Your task to perform on an android device: Search for seafood restaurants on Google Maps Image 0: 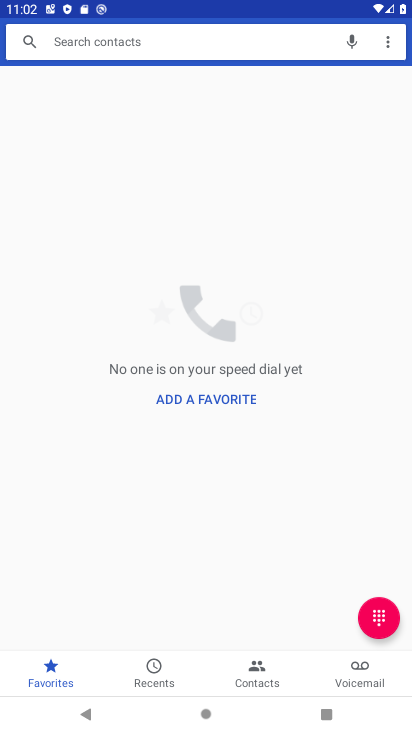
Step 0: press home button
Your task to perform on an android device: Search for seafood restaurants on Google Maps Image 1: 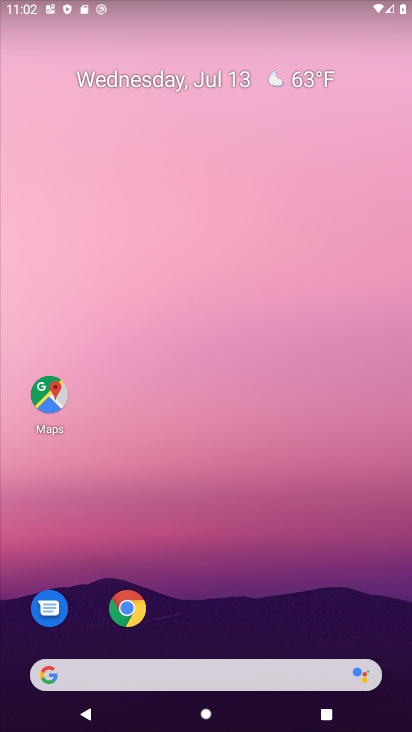
Step 1: click (52, 390)
Your task to perform on an android device: Search for seafood restaurants on Google Maps Image 2: 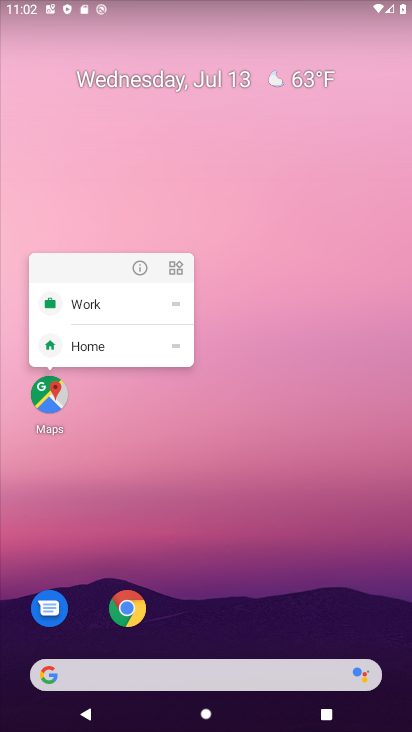
Step 2: click (38, 403)
Your task to perform on an android device: Search for seafood restaurants on Google Maps Image 3: 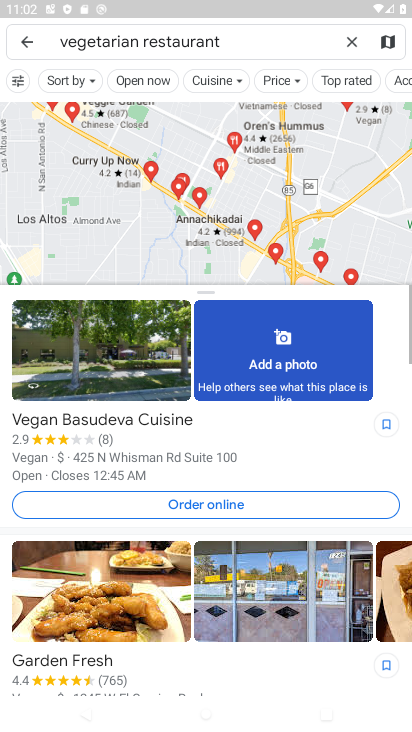
Step 3: click (353, 37)
Your task to perform on an android device: Search for seafood restaurants on Google Maps Image 4: 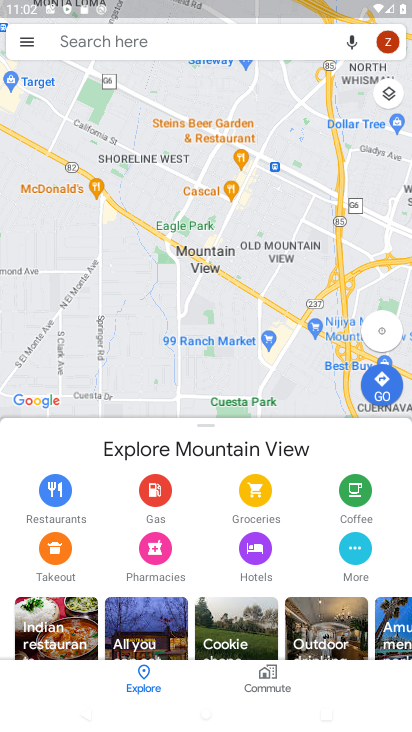
Step 4: type "seafood restaurants"
Your task to perform on an android device: Search for seafood restaurants on Google Maps Image 5: 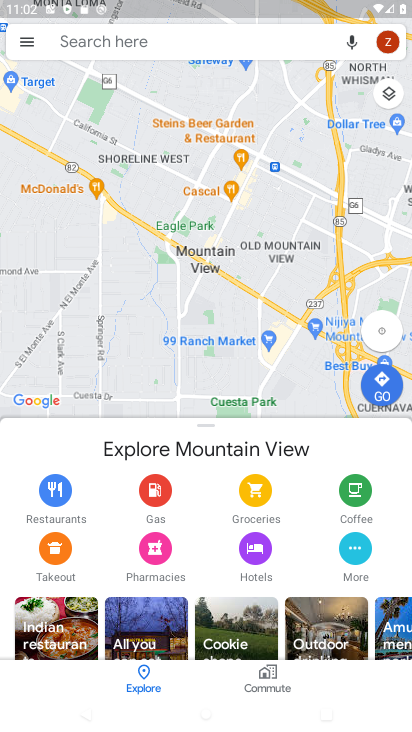
Step 5: click (73, 47)
Your task to perform on an android device: Search for seafood restaurants on Google Maps Image 6: 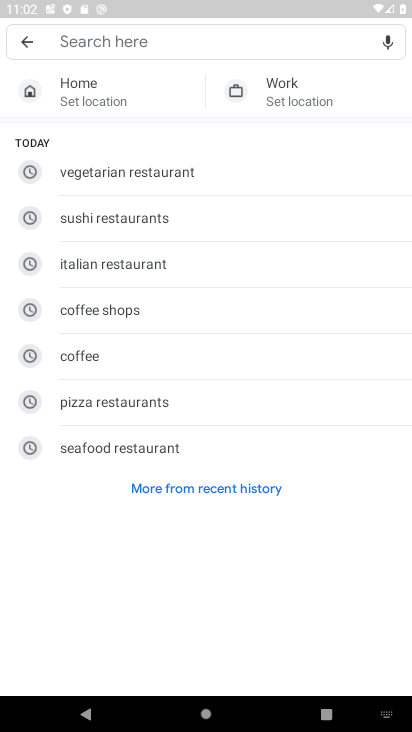
Step 6: click (108, 450)
Your task to perform on an android device: Search for seafood restaurants on Google Maps Image 7: 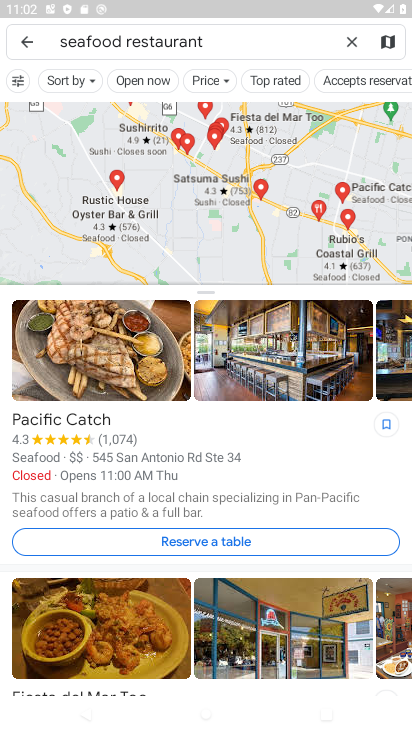
Step 7: task complete